Your task to perform on an android device: Add "razer naga" to the cart on target, then select checkout. Image 0: 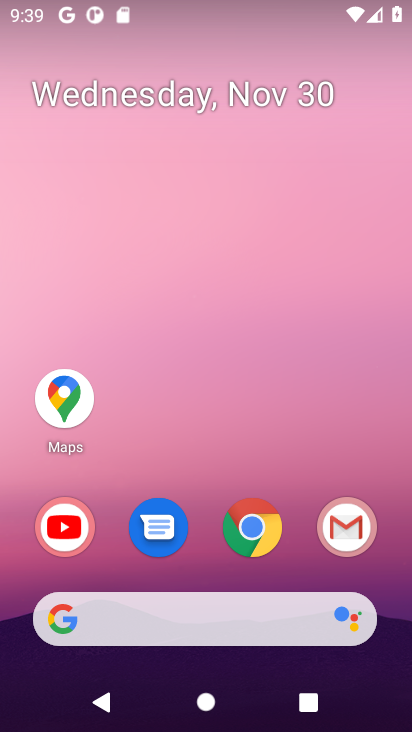
Step 0: click (262, 518)
Your task to perform on an android device: Add "razer naga" to the cart on target, then select checkout. Image 1: 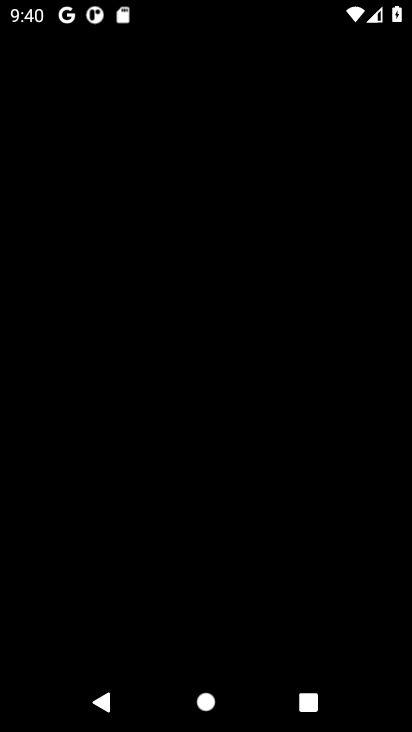
Step 1: press home button
Your task to perform on an android device: Add "razer naga" to the cart on target, then select checkout. Image 2: 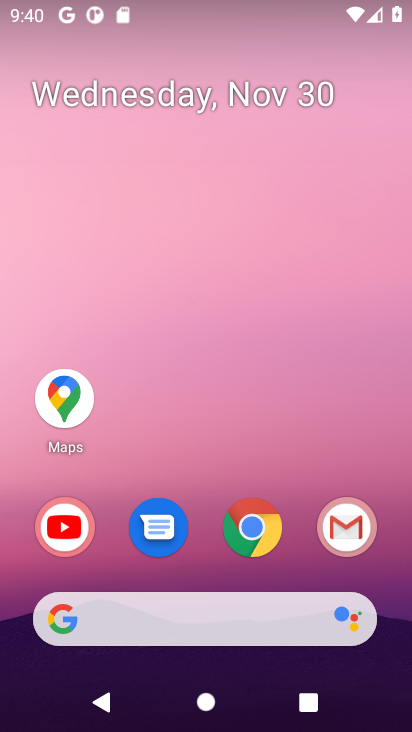
Step 2: click (244, 521)
Your task to perform on an android device: Add "razer naga" to the cart on target, then select checkout. Image 3: 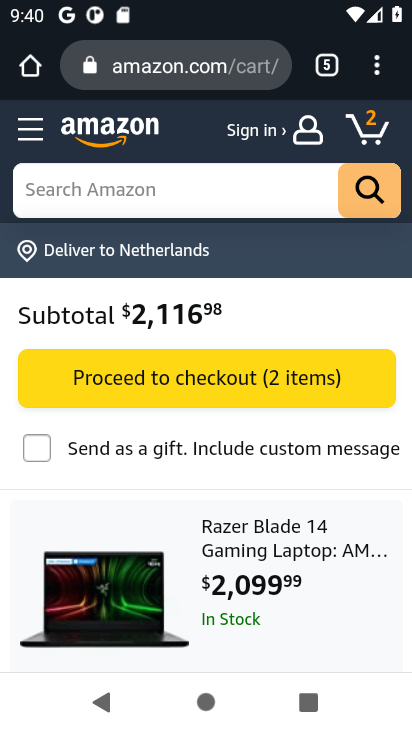
Step 3: click (241, 60)
Your task to perform on an android device: Add "razer naga" to the cart on target, then select checkout. Image 4: 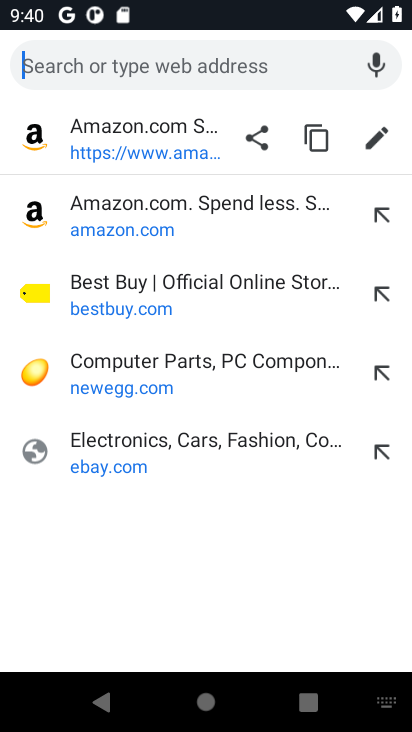
Step 4: type "target"
Your task to perform on an android device: Add "razer naga" to the cart on target, then select checkout. Image 5: 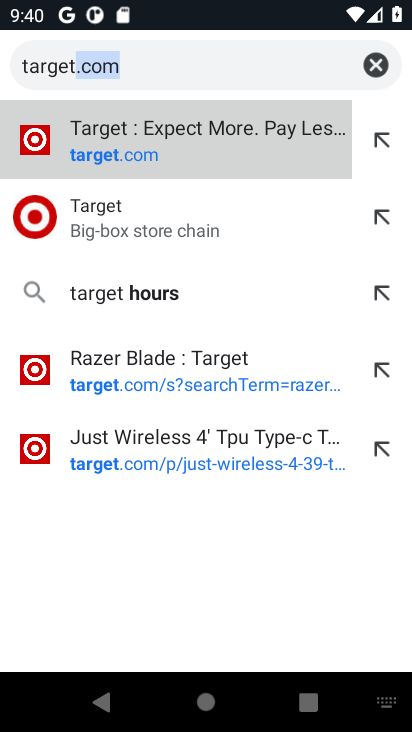
Step 5: press enter
Your task to perform on an android device: Add "razer naga" to the cart on target, then select checkout. Image 6: 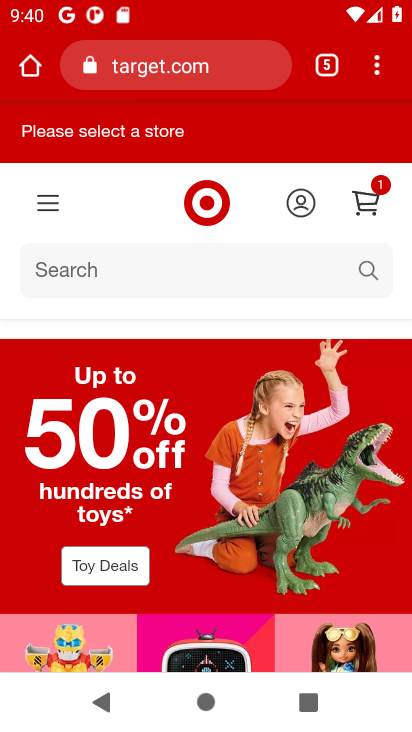
Step 6: click (366, 273)
Your task to perform on an android device: Add "razer naga" to the cart on target, then select checkout. Image 7: 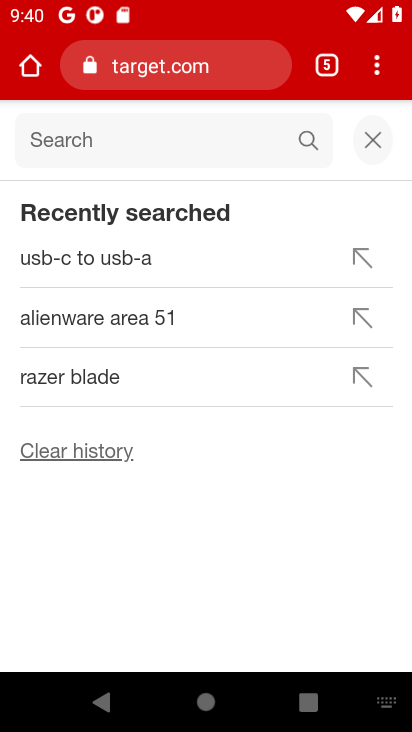
Step 7: type "razer naga"
Your task to perform on an android device: Add "razer naga" to the cart on target, then select checkout. Image 8: 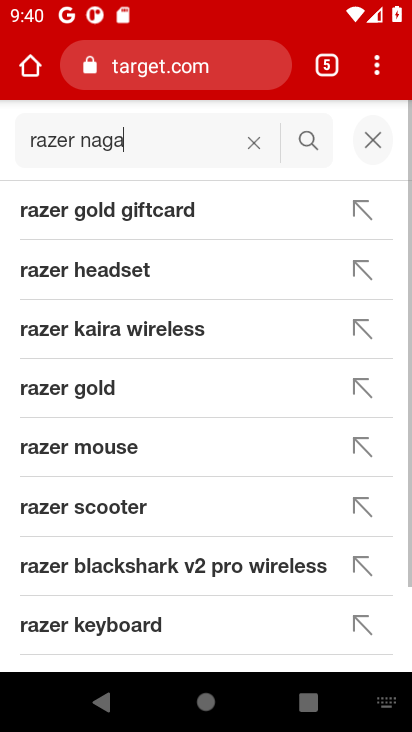
Step 8: press enter
Your task to perform on an android device: Add "razer naga" to the cart on target, then select checkout. Image 9: 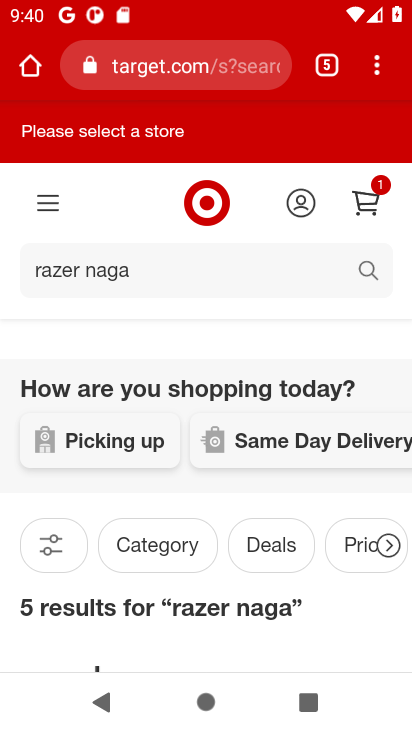
Step 9: task complete